Your task to perform on an android device: find which apps use the phone's location Image 0: 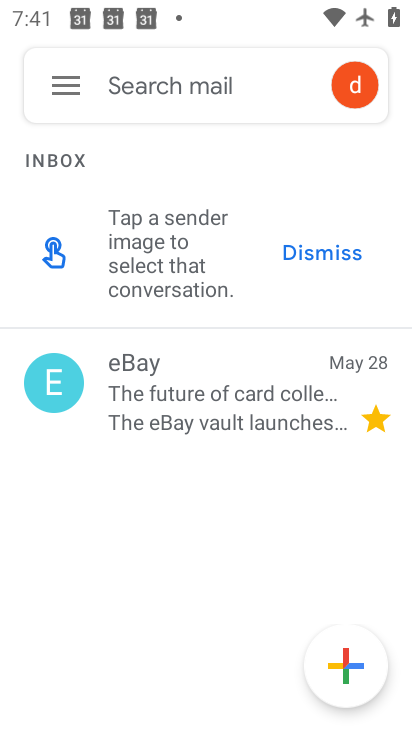
Step 0: press home button
Your task to perform on an android device: find which apps use the phone's location Image 1: 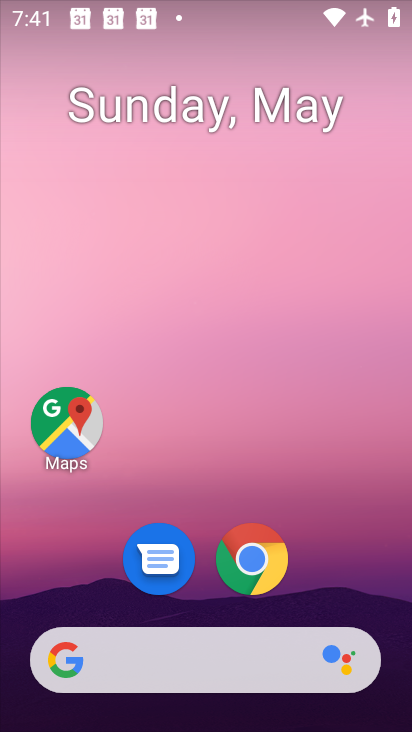
Step 1: drag from (230, 646) to (303, 131)
Your task to perform on an android device: find which apps use the phone's location Image 2: 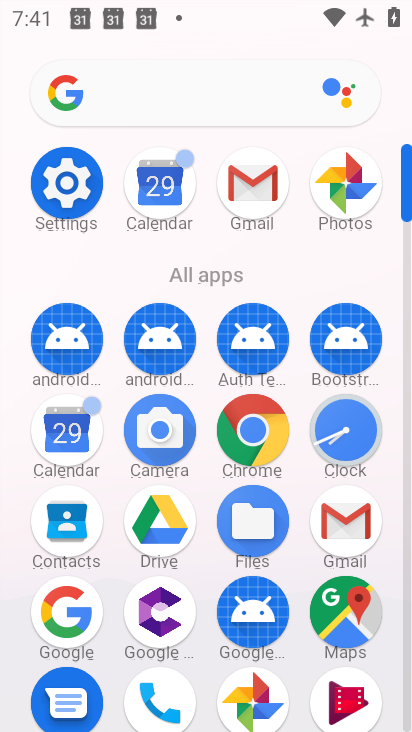
Step 2: click (81, 192)
Your task to perform on an android device: find which apps use the phone's location Image 3: 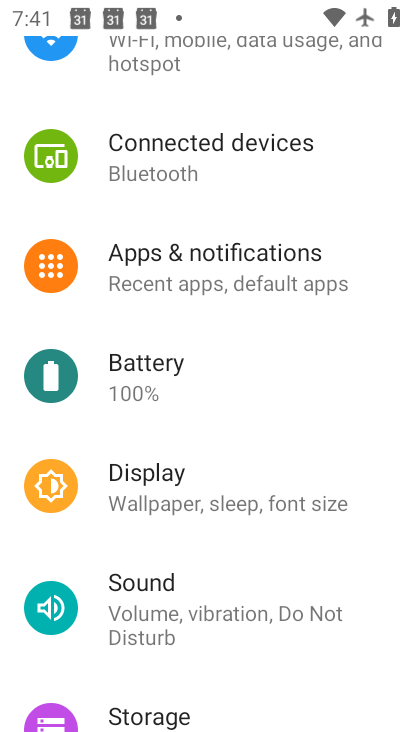
Step 3: drag from (253, 562) to (345, 91)
Your task to perform on an android device: find which apps use the phone's location Image 4: 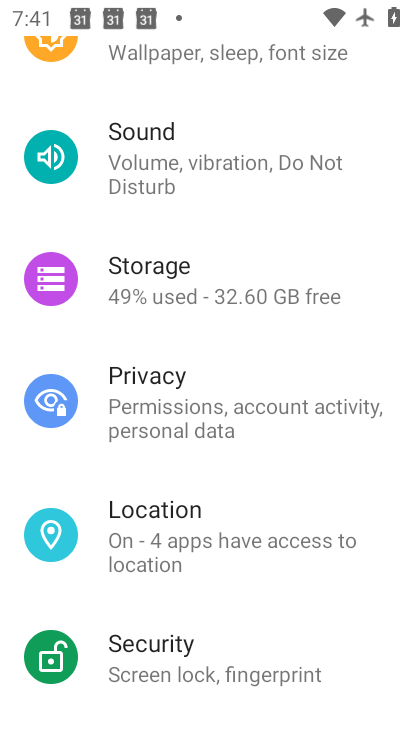
Step 4: click (174, 532)
Your task to perform on an android device: find which apps use the phone's location Image 5: 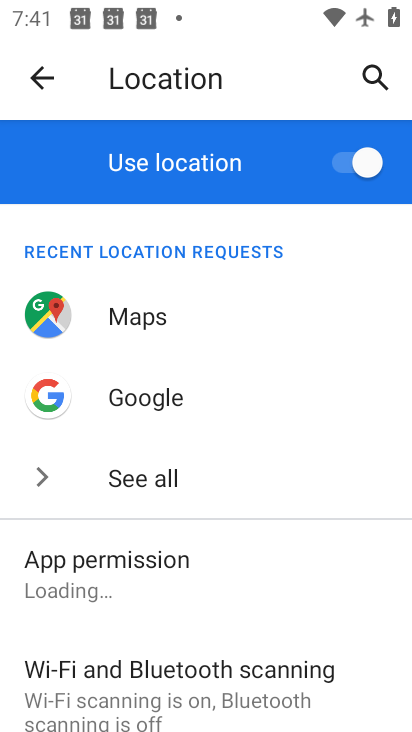
Step 5: drag from (270, 463) to (320, 189)
Your task to perform on an android device: find which apps use the phone's location Image 6: 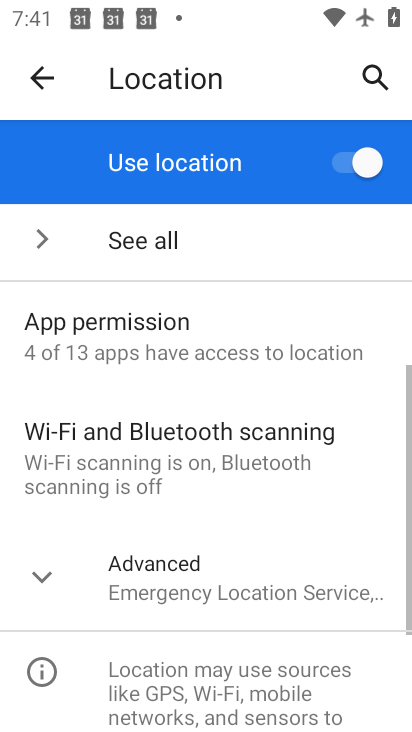
Step 6: drag from (239, 514) to (319, 246)
Your task to perform on an android device: find which apps use the phone's location Image 7: 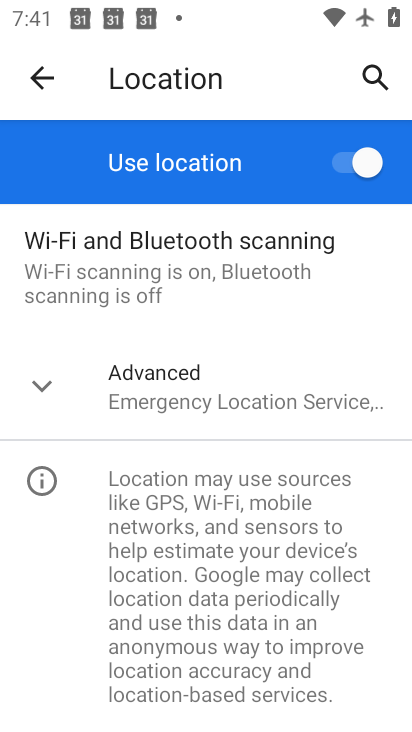
Step 7: drag from (235, 299) to (221, 623)
Your task to perform on an android device: find which apps use the phone's location Image 8: 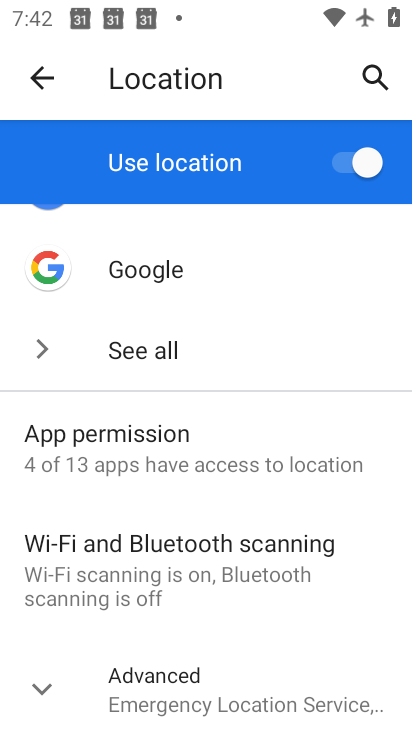
Step 8: click (121, 441)
Your task to perform on an android device: find which apps use the phone's location Image 9: 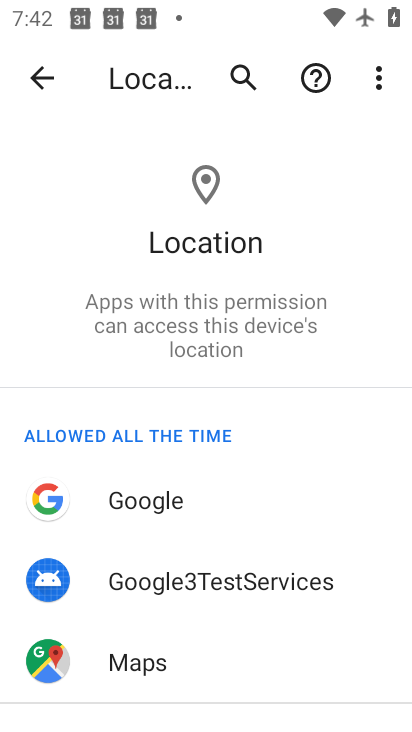
Step 9: drag from (215, 609) to (293, 125)
Your task to perform on an android device: find which apps use the phone's location Image 10: 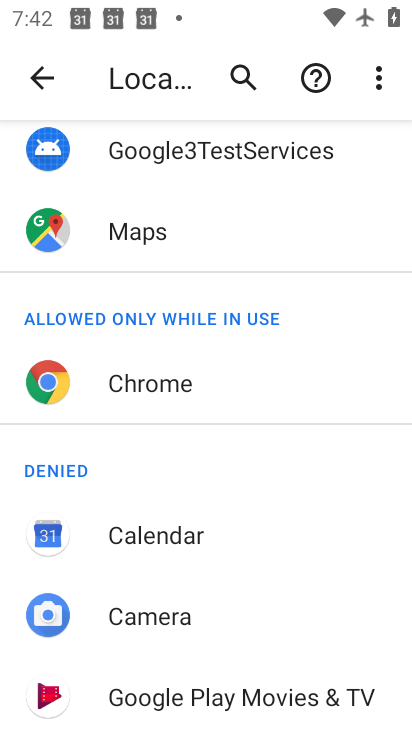
Step 10: drag from (281, 362) to (341, 101)
Your task to perform on an android device: find which apps use the phone's location Image 11: 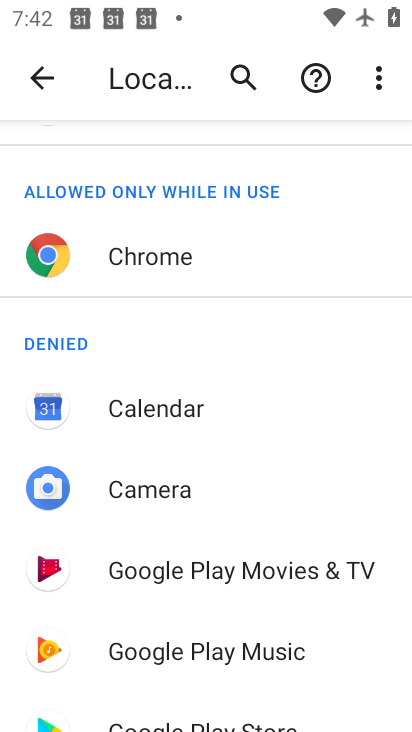
Step 11: drag from (195, 702) to (342, 83)
Your task to perform on an android device: find which apps use the phone's location Image 12: 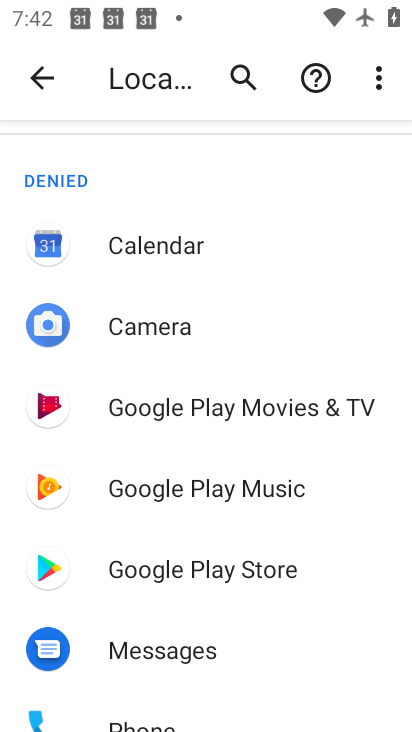
Step 12: drag from (201, 588) to (235, 128)
Your task to perform on an android device: find which apps use the phone's location Image 13: 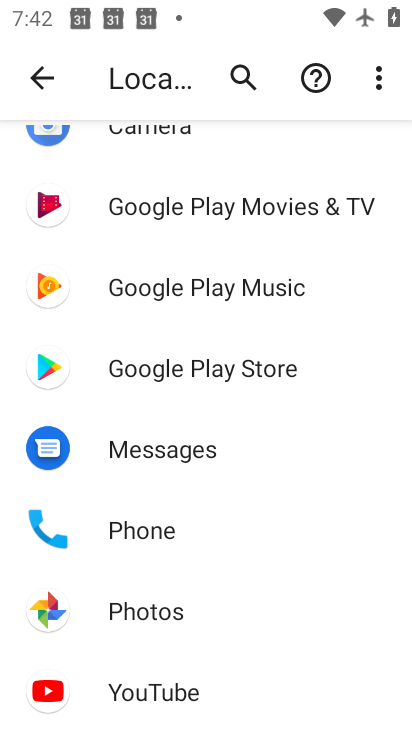
Step 13: click (142, 529)
Your task to perform on an android device: find which apps use the phone's location Image 14: 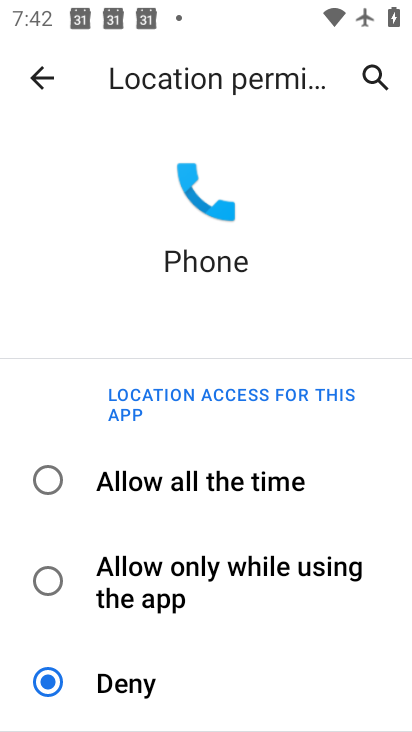
Step 14: task complete